Your task to perform on an android device: Open Reddit.com Image 0: 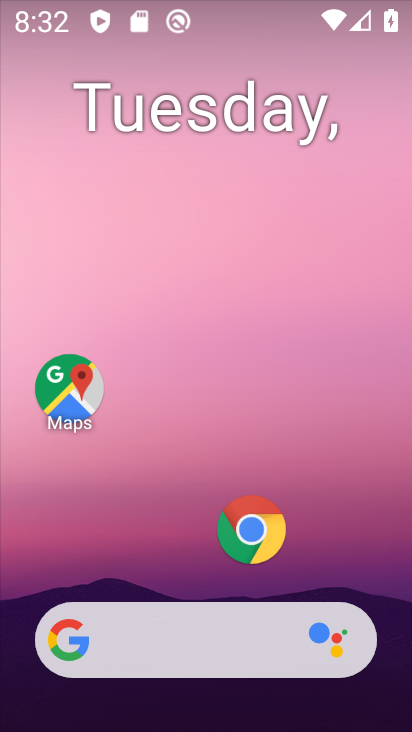
Step 0: press home button
Your task to perform on an android device: Open Reddit.com Image 1: 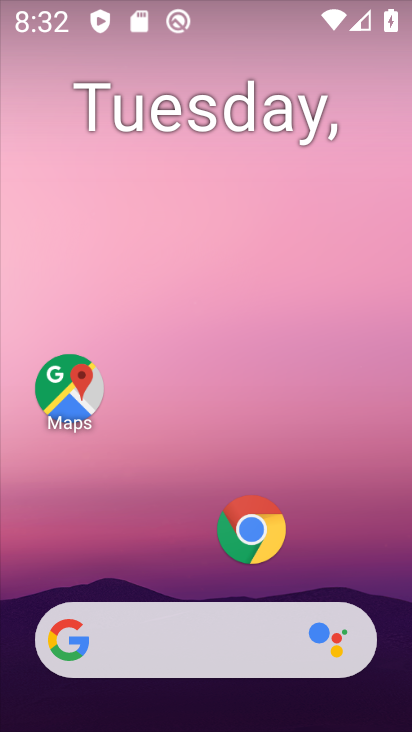
Step 1: click (255, 514)
Your task to perform on an android device: Open Reddit.com Image 2: 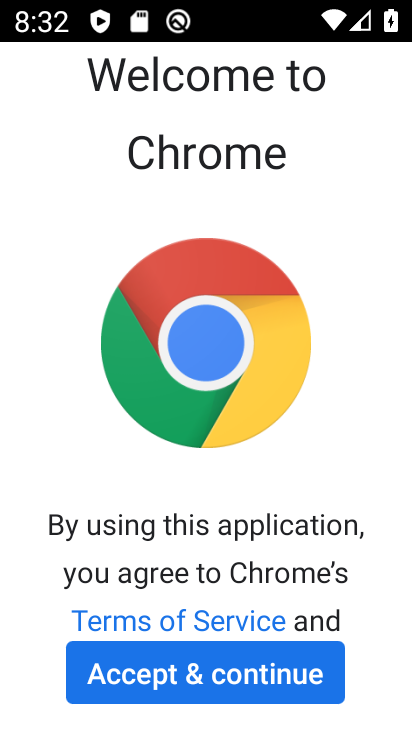
Step 2: click (198, 663)
Your task to perform on an android device: Open Reddit.com Image 3: 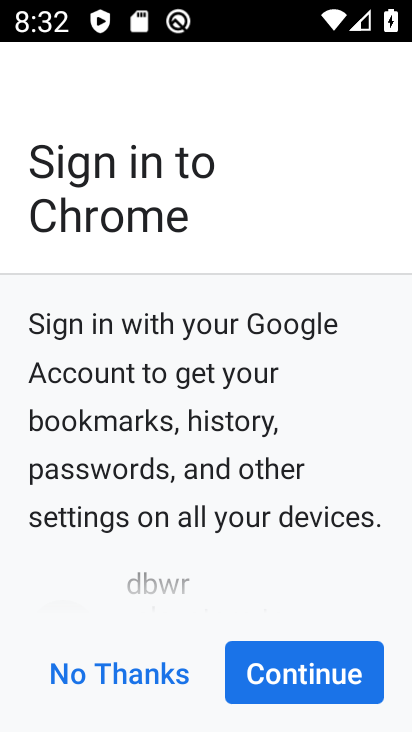
Step 3: click (298, 684)
Your task to perform on an android device: Open Reddit.com Image 4: 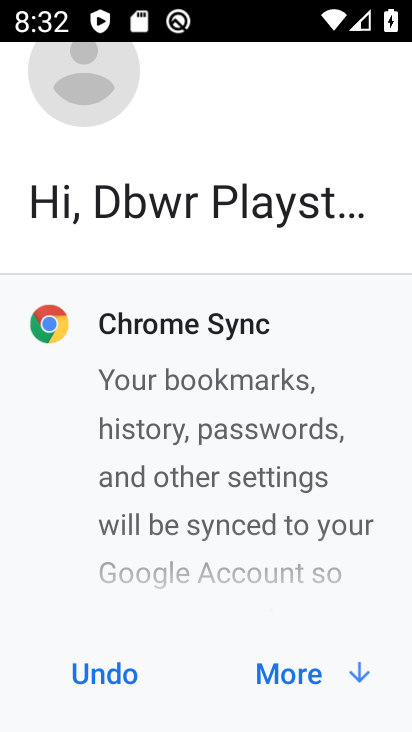
Step 4: click (298, 684)
Your task to perform on an android device: Open Reddit.com Image 5: 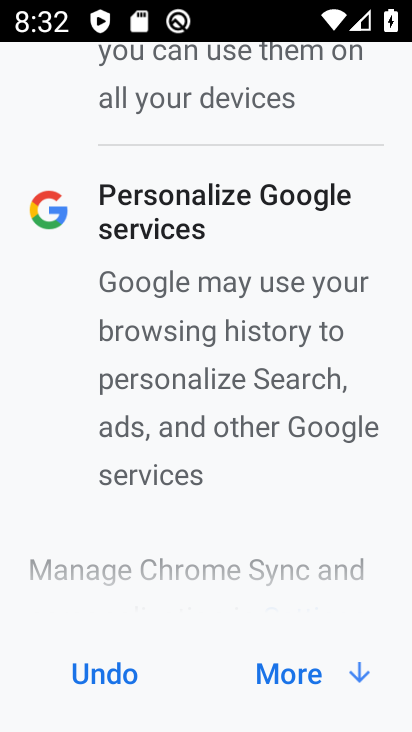
Step 5: click (298, 684)
Your task to perform on an android device: Open Reddit.com Image 6: 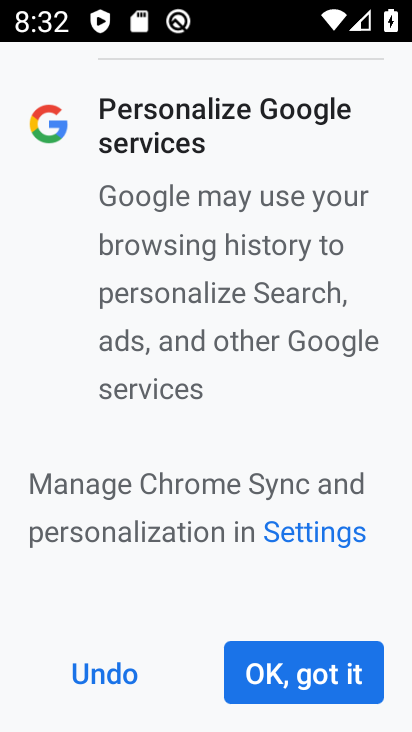
Step 6: click (298, 684)
Your task to perform on an android device: Open Reddit.com Image 7: 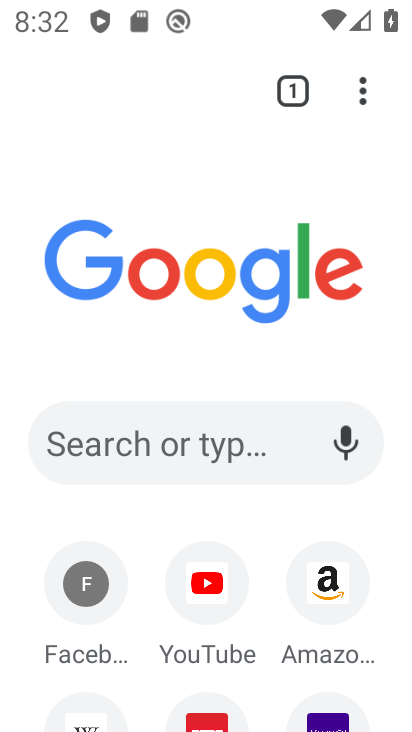
Step 7: click (172, 442)
Your task to perform on an android device: Open Reddit.com Image 8: 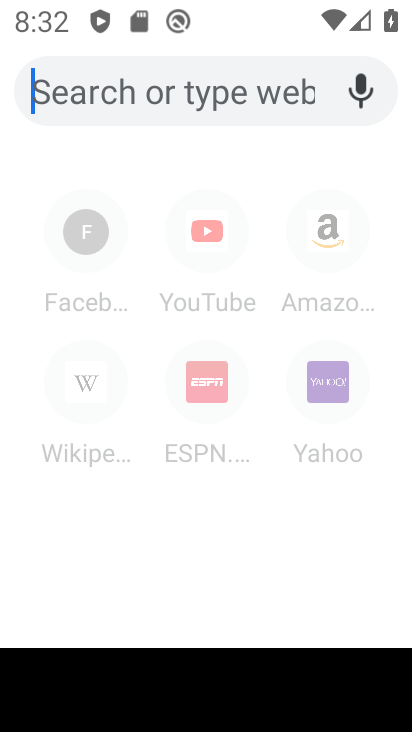
Step 8: type "reddit"
Your task to perform on an android device: Open Reddit.com Image 9: 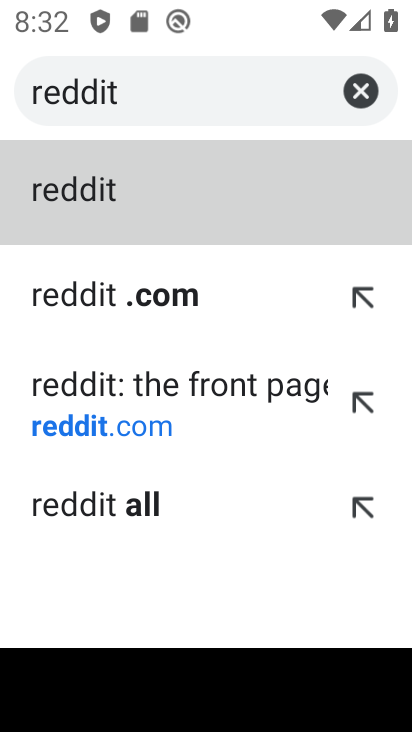
Step 9: click (152, 410)
Your task to perform on an android device: Open Reddit.com Image 10: 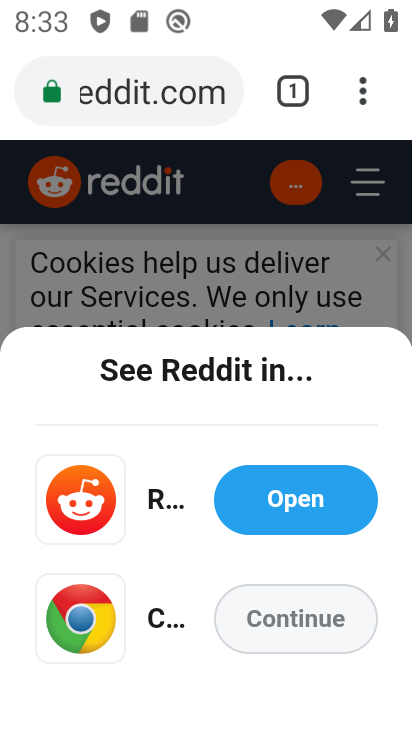
Step 10: click (293, 618)
Your task to perform on an android device: Open Reddit.com Image 11: 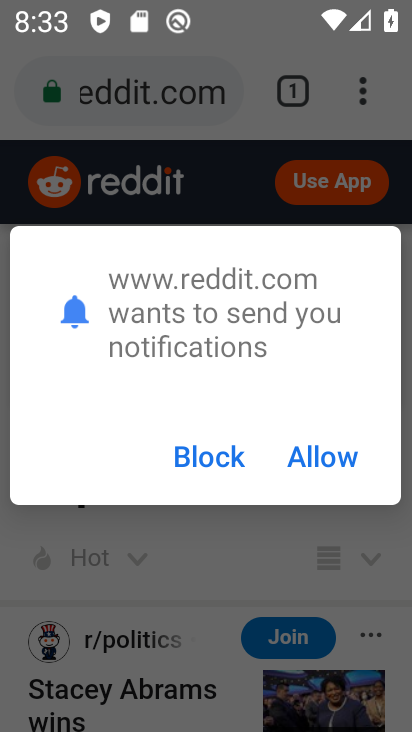
Step 11: click (320, 449)
Your task to perform on an android device: Open Reddit.com Image 12: 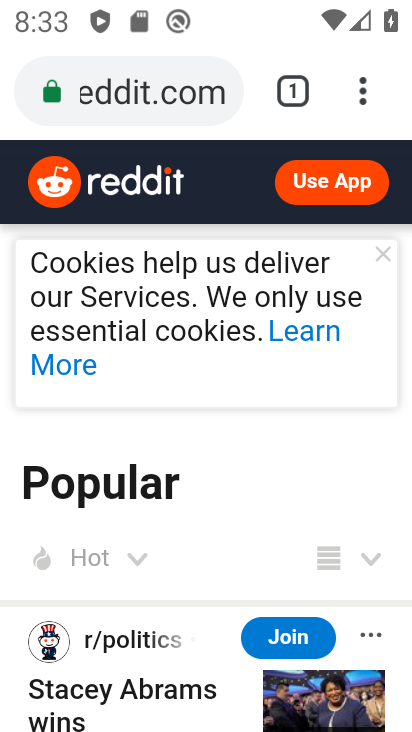
Step 12: task complete